Your task to perform on an android device: Turn off the flashlight Image 0: 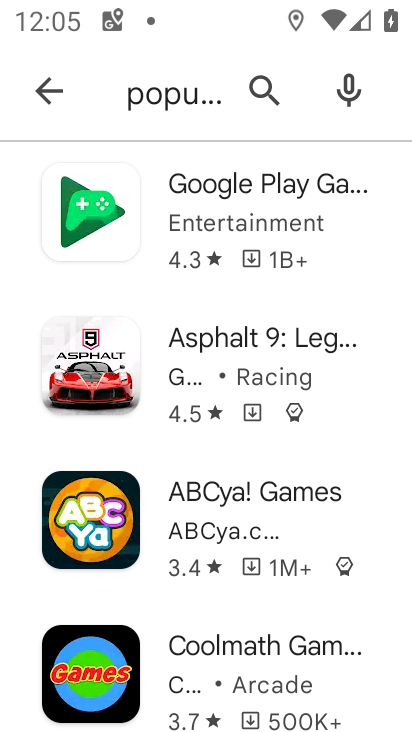
Step 0: press home button
Your task to perform on an android device: Turn off the flashlight Image 1: 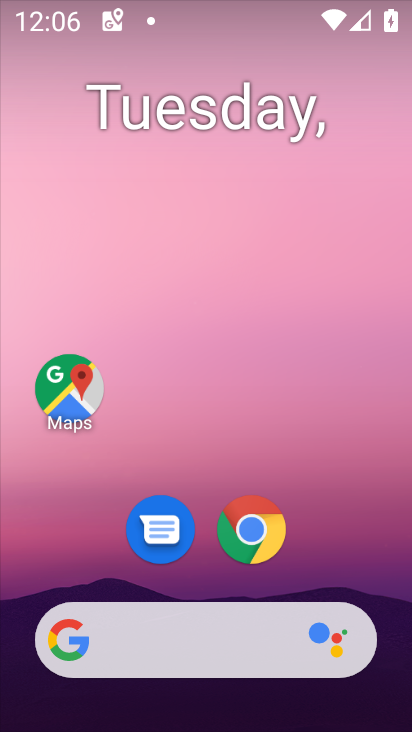
Step 1: drag from (254, 696) to (244, 358)
Your task to perform on an android device: Turn off the flashlight Image 2: 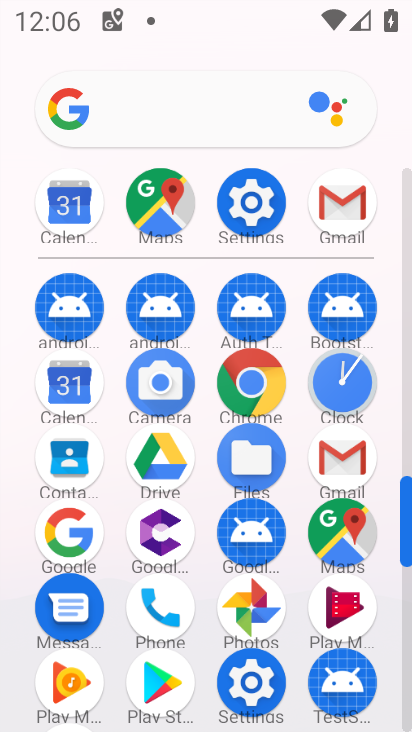
Step 2: click (259, 178)
Your task to perform on an android device: Turn off the flashlight Image 3: 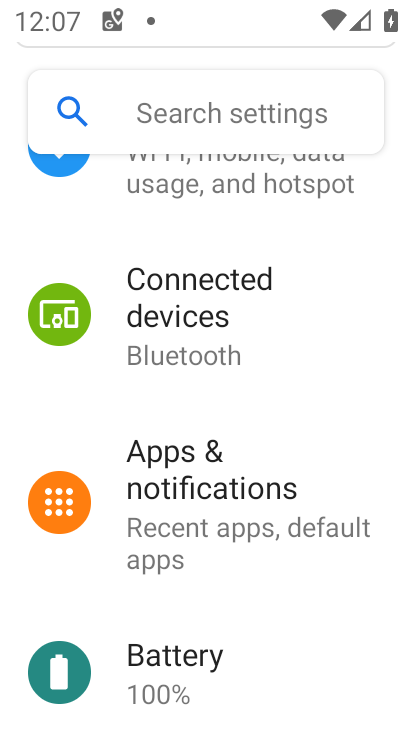
Step 3: click (180, 96)
Your task to perform on an android device: Turn off the flashlight Image 4: 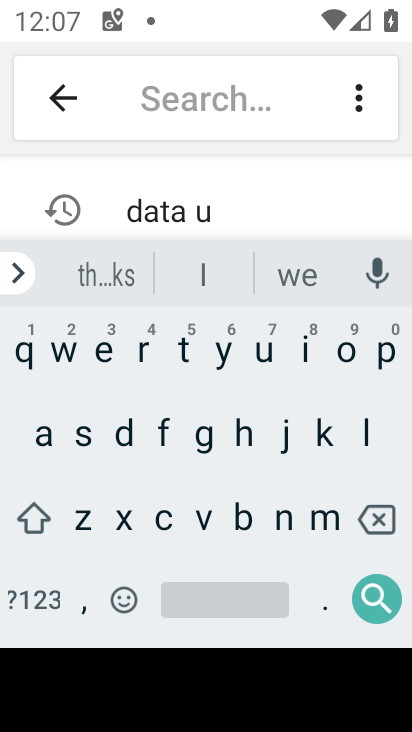
Step 4: click (165, 431)
Your task to perform on an android device: Turn off the flashlight Image 5: 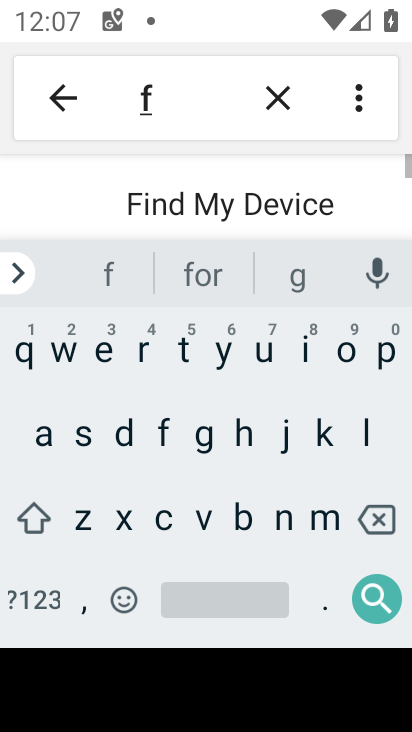
Step 5: click (367, 437)
Your task to perform on an android device: Turn off the flashlight Image 6: 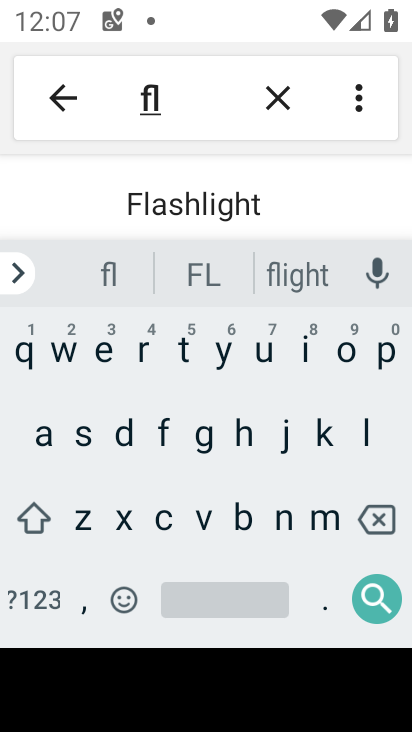
Step 6: click (186, 208)
Your task to perform on an android device: Turn off the flashlight Image 7: 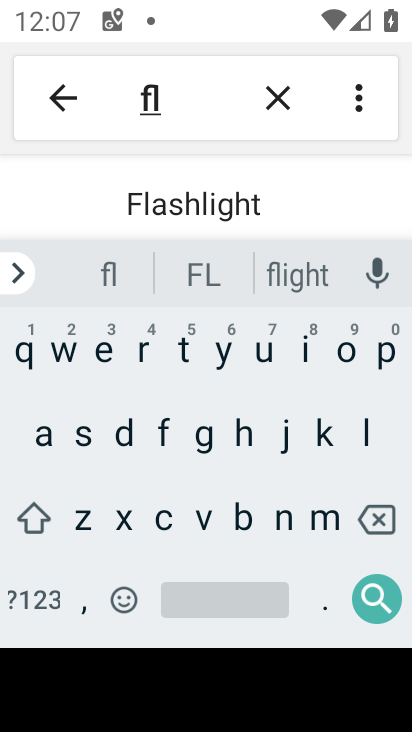
Step 7: task complete